Your task to perform on an android device: turn smart compose on in the gmail app Image 0: 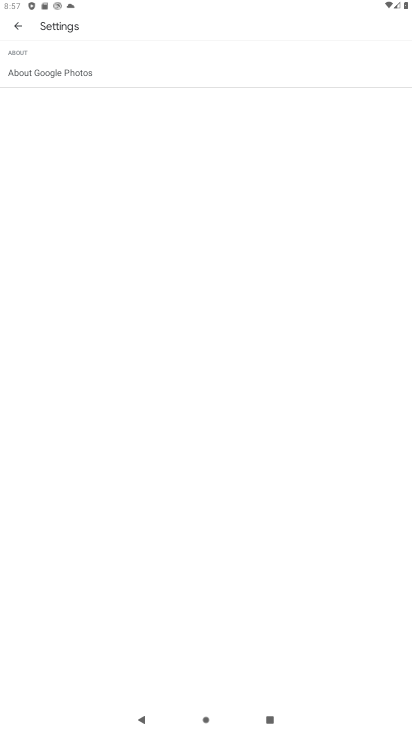
Step 0: press home button
Your task to perform on an android device: turn smart compose on in the gmail app Image 1: 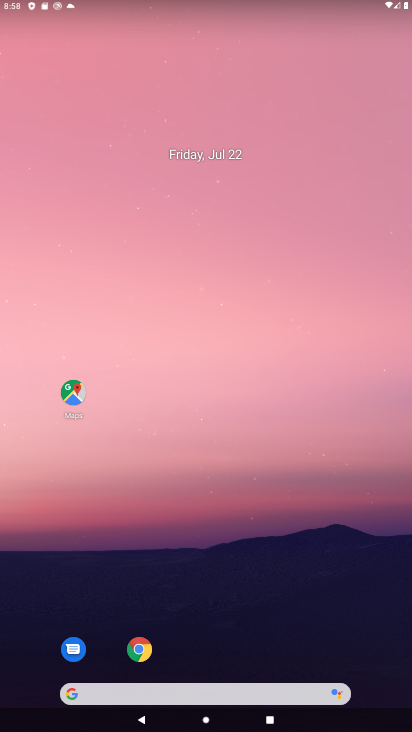
Step 1: drag from (200, 581) to (221, 249)
Your task to perform on an android device: turn smart compose on in the gmail app Image 2: 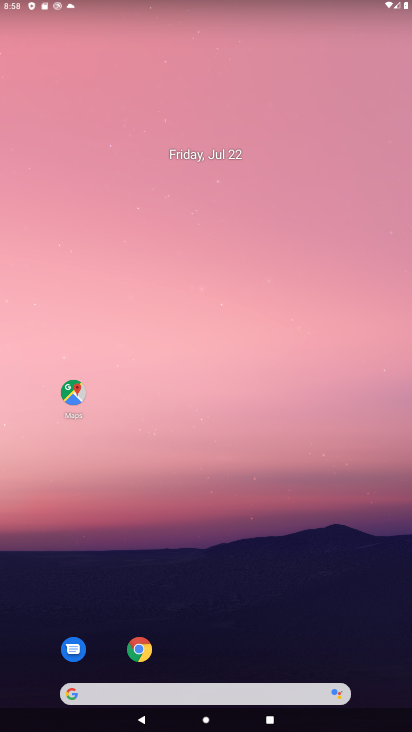
Step 2: drag from (240, 534) to (211, 99)
Your task to perform on an android device: turn smart compose on in the gmail app Image 3: 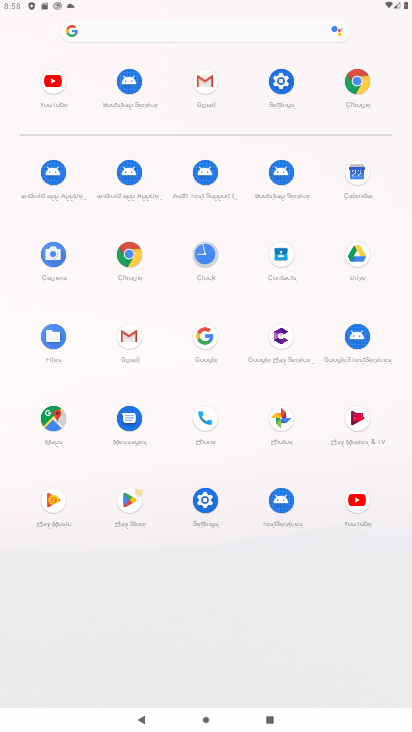
Step 3: click (126, 341)
Your task to perform on an android device: turn smart compose on in the gmail app Image 4: 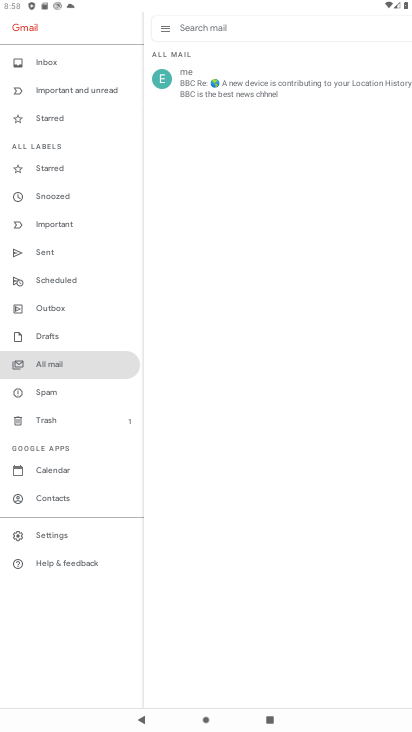
Step 4: task complete